Your task to perform on an android device: Do I have any events this weekend? Image 0: 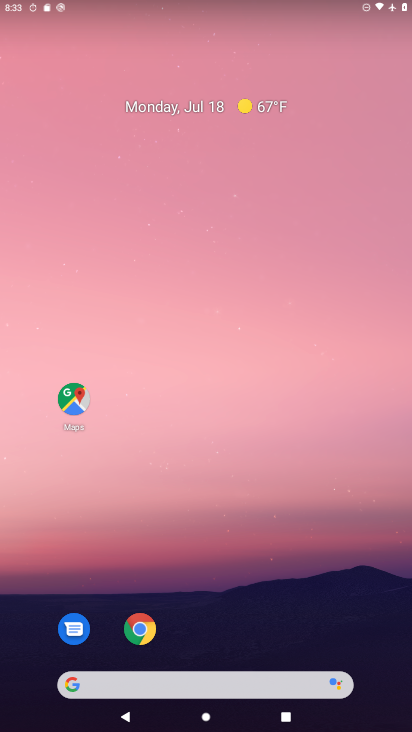
Step 0: drag from (233, 655) to (164, 26)
Your task to perform on an android device: Do I have any events this weekend? Image 1: 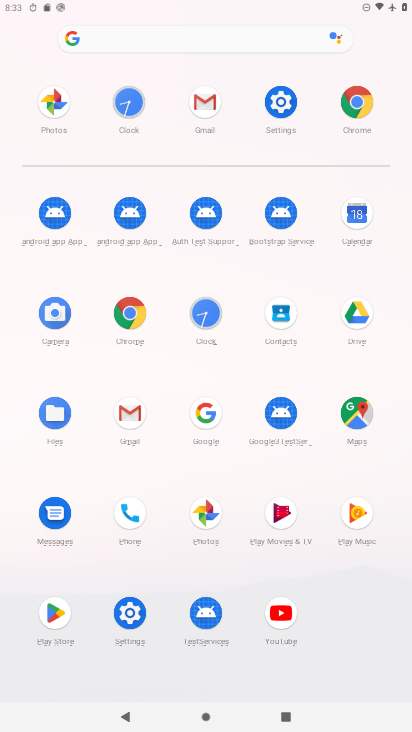
Step 1: click (366, 212)
Your task to perform on an android device: Do I have any events this weekend? Image 2: 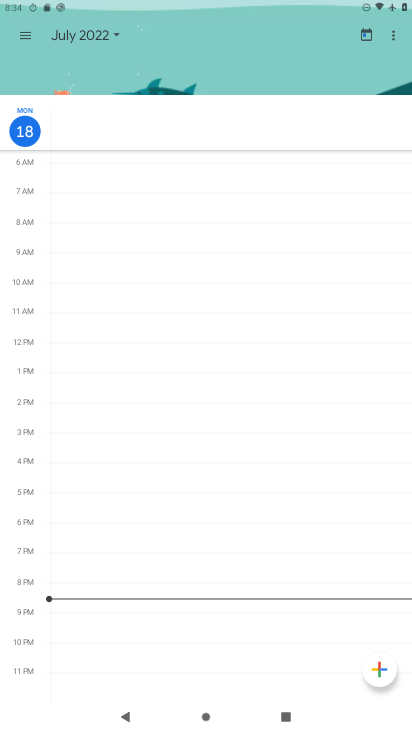
Step 2: click (21, 35)
Your task to perform on an android device: Do I have any events this weekend? Image 3: 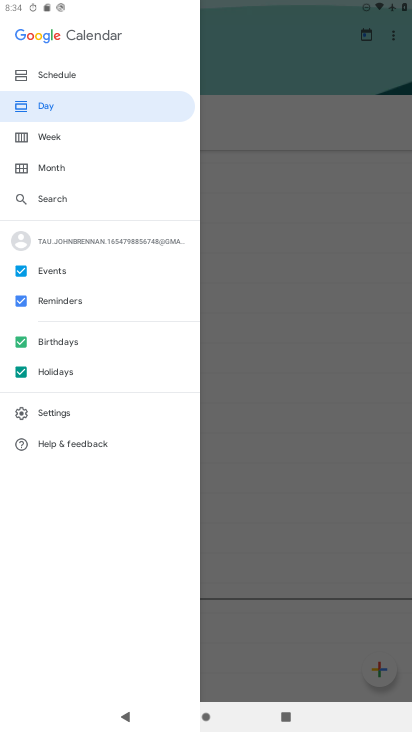
Step 3: click (59, 139)
Your task to perform on an android device: Do I have any events this weekend? Image 4: 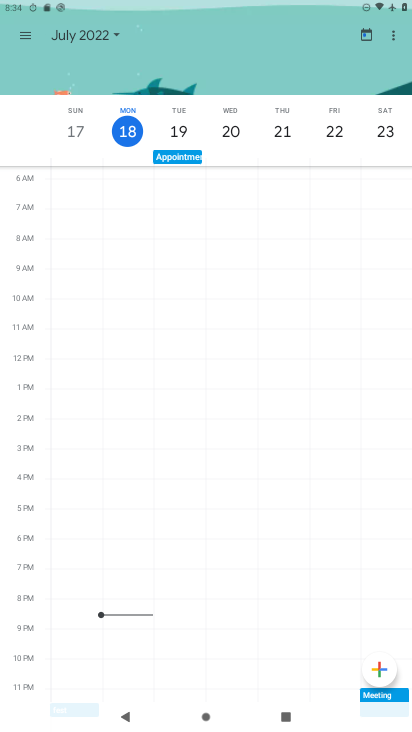
Step 4: task complete